Your task to perform on an android device: turn on data saver in the chrome app Image 0: 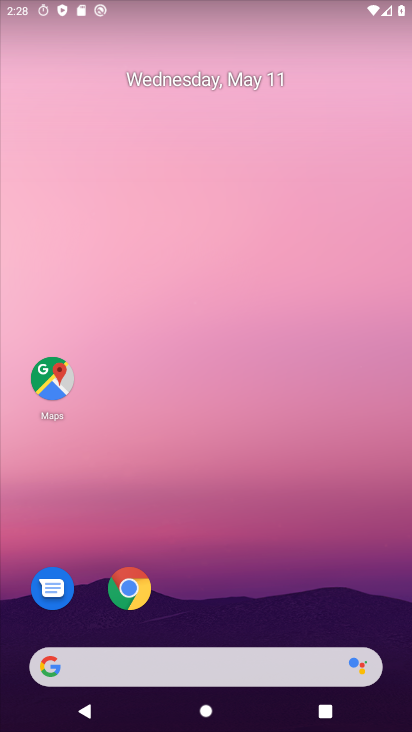
Step 0: press home button
Your task to perform on an android device: turn on data saver in the chrome app Image 1: 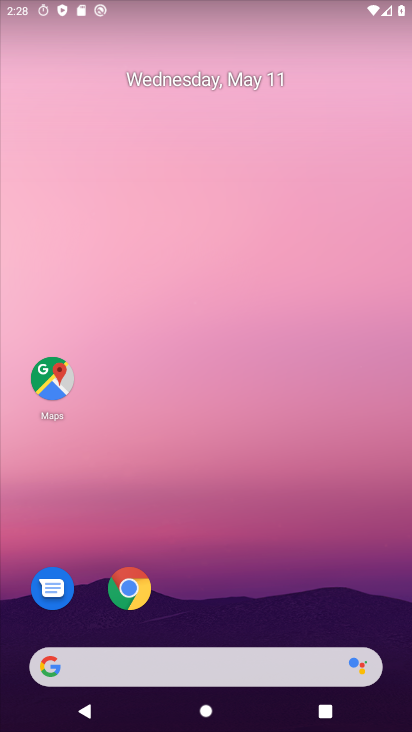
Step 1: drag from (243, 595) to (222, 46)
Your task to perform on an android device: turn on data saver in the chrome app Image 2: 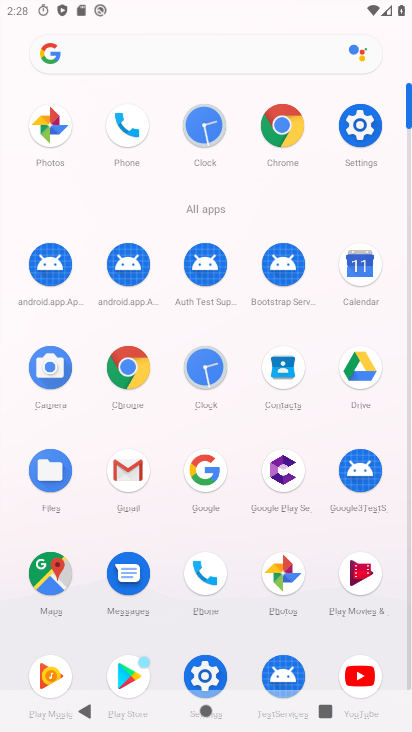
Step 2: click (127, 370)
Your task to perform on an android device: turn on data saver in the chrome app Image 3: 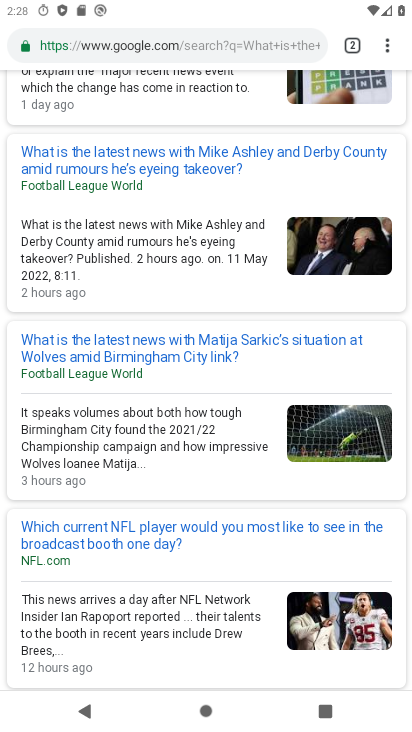
Step 3: drag from (388, 37) to (224, 560)
Your task to perform on an android device: turn on data saver in the chrome app Image 4: 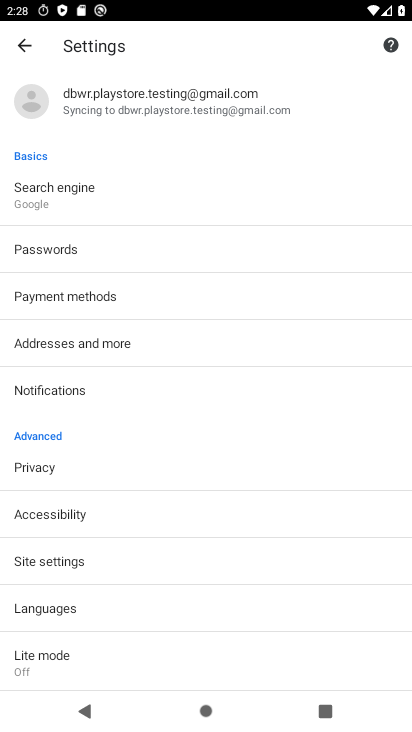
Step 4: drag from (183, 617) to (180, 231)
Your task to perform on an android device: turn on data saver in the chrome app Image 5: 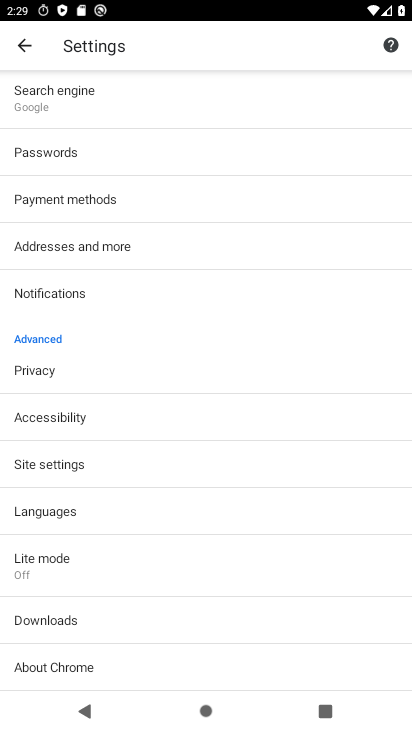
Step 5: click (76, 560)
Your task to perform on an android device: turn on data saver in the chrome app Image 6: 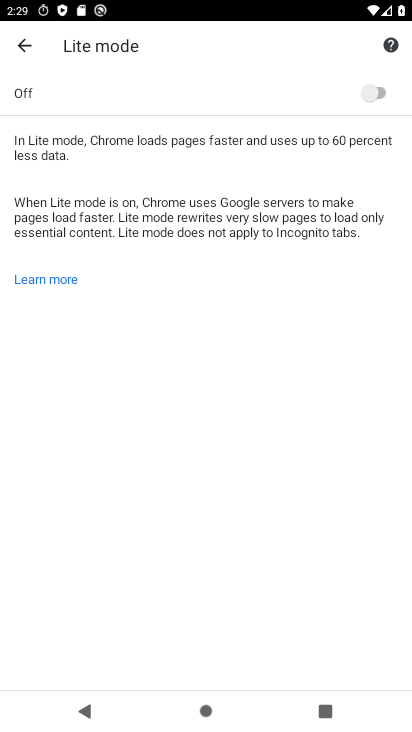
Step 6: click (383, 96)
Your task to perform on an android device: turn on data saver in the chrome app Image 7: 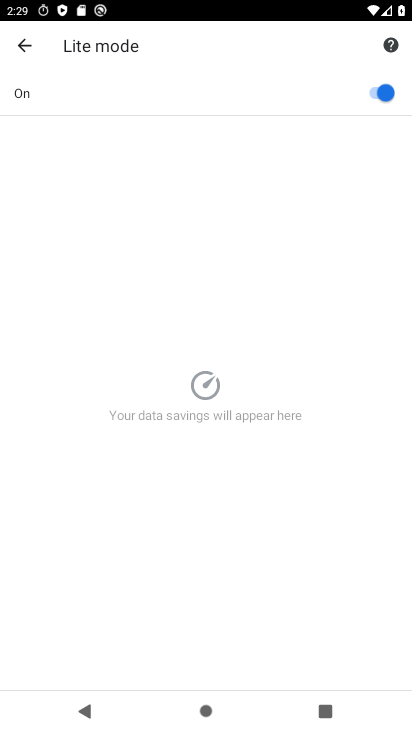
Step 7: task complete